Your task to perform on an android device: show emergency info Image 0: 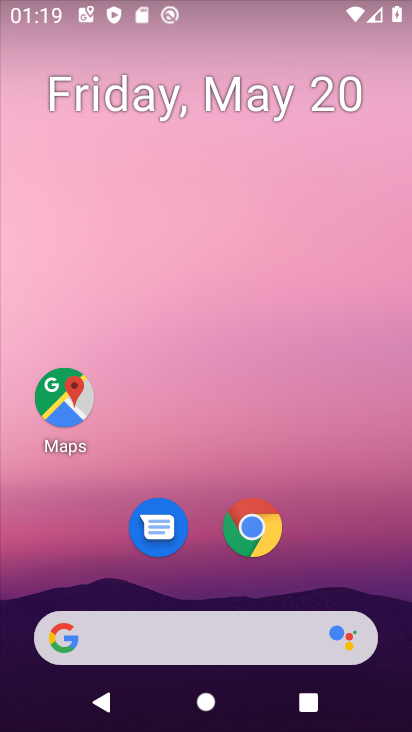
Step 0: drag from (173, 633) to (326, 91)
Your task to perform on an android device: show emergency info Image 1: 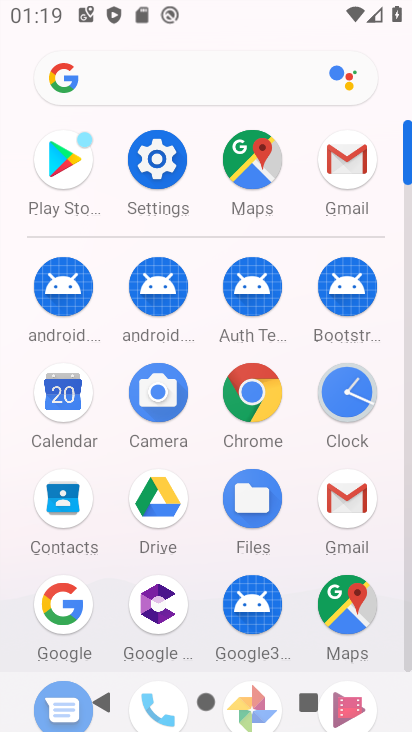
Step 1: click (158, 175)
Your task to perform on an android device: show emergency info Image 2: 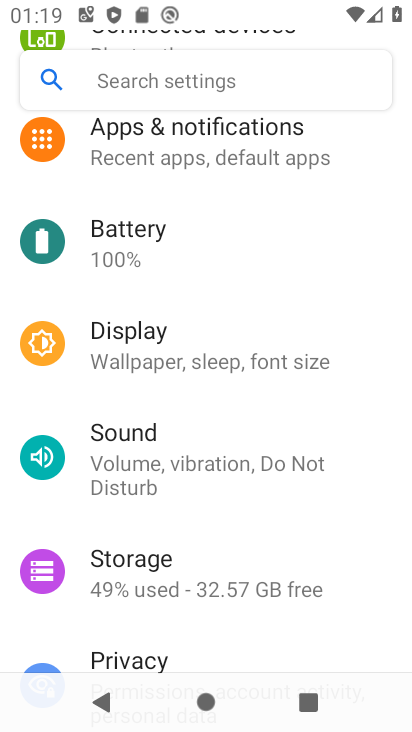
Step 2: drag from (262, 539) to (390, 109)
Your task to perform on an android device: show emergency info Image 3: 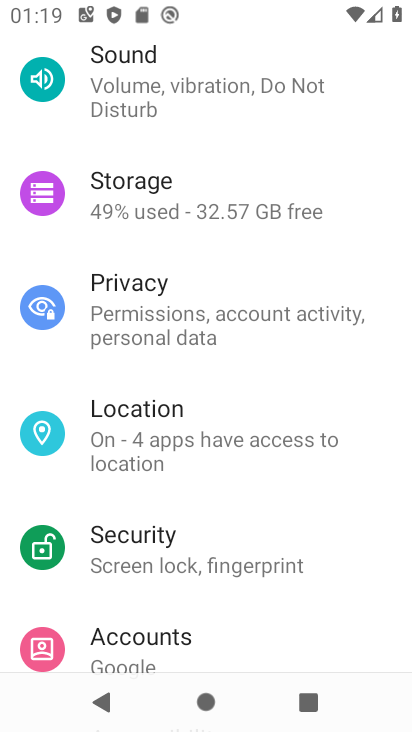
Step 3: drag from (233, 643) to (407, 28)
Your task to perform on an android device: show emergency info Image 4: 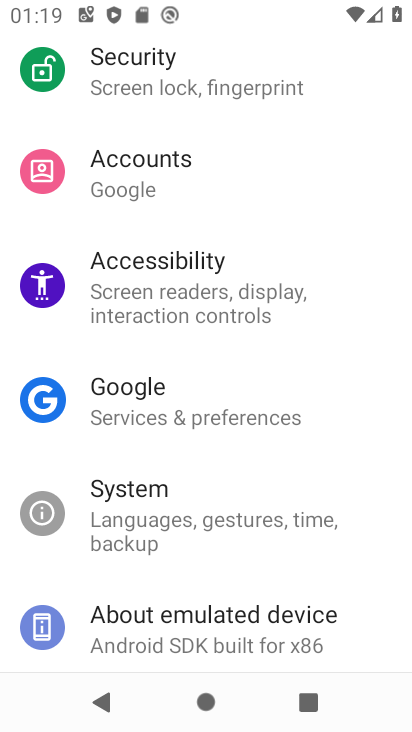
Step 4: drag from (248, 543) to (335, 256)
Your task to perform on an android device: show emergency info Image 5: 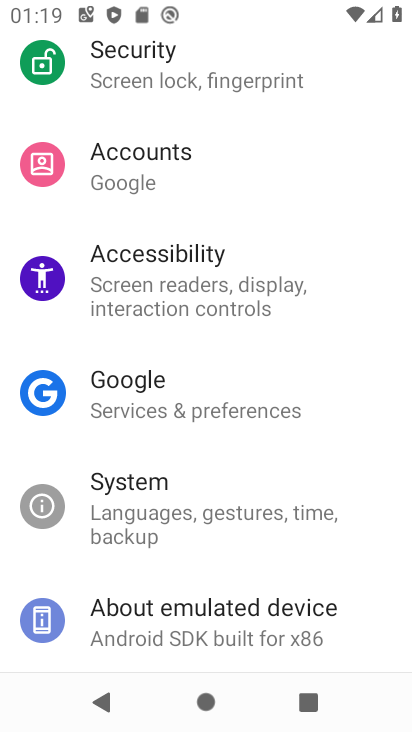
Step 5: click (205, 614)
Your task to perform on an android device: show emergency info Image 6: 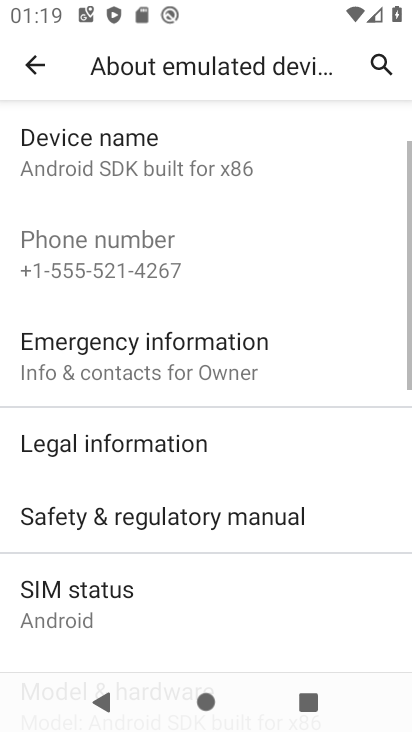
Step 6: click (167, 346)
Your task to perform on an android device: show emergency info Image 7: 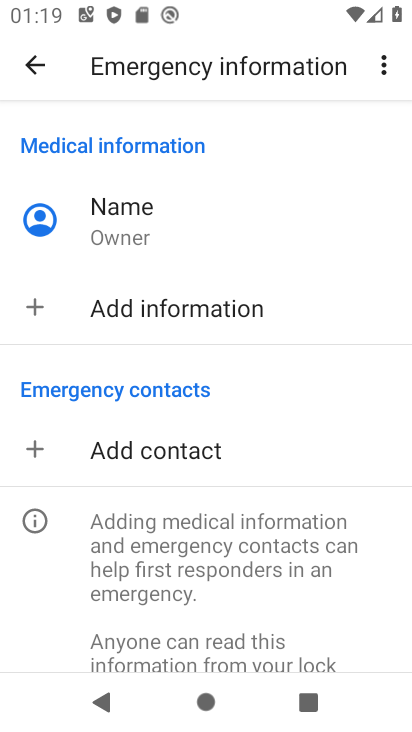
Step 7: task complete